Your task to perform on an android device: What's the weather today? Image 0: 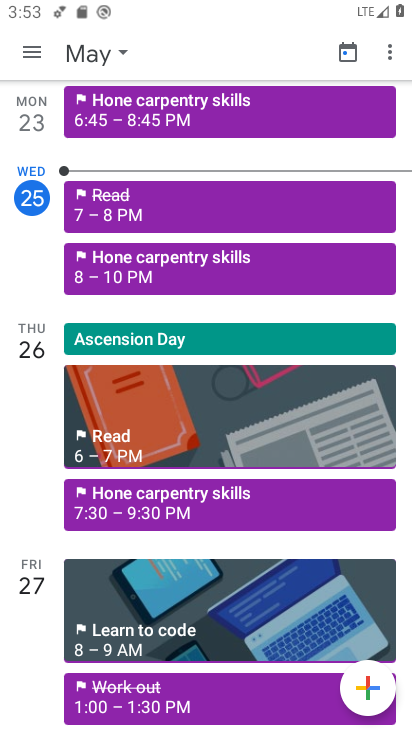
Step 0: press home button
Your task to perform on an android device: What's the weather today? Image 1: 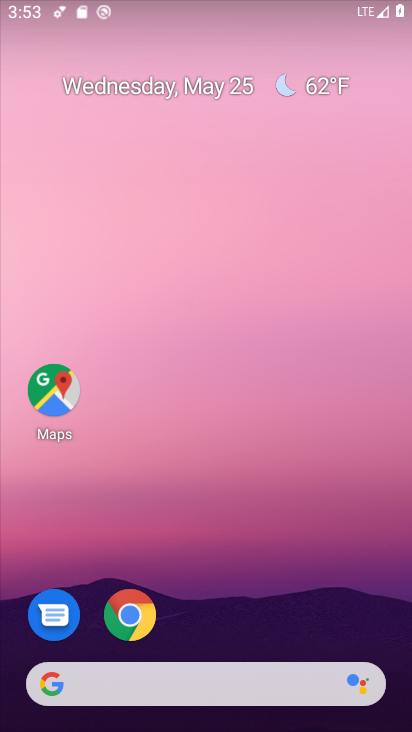
Step 1: drag from (222, 167) to (183, 16)
Your task to perform on an android device: What's the weather today? Image 2: 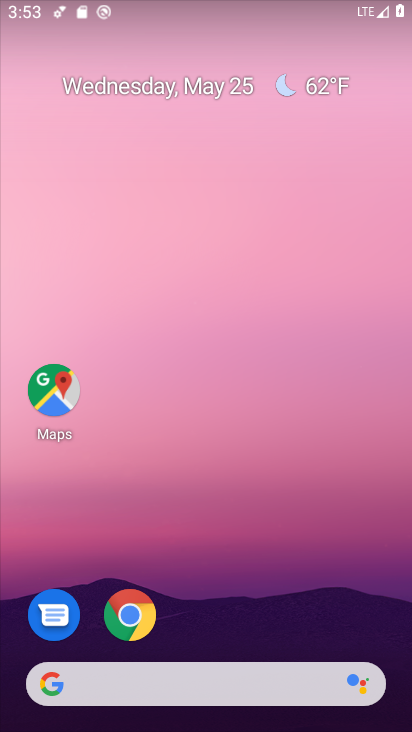
Step 2: click (324, 78)
Your task to perform on an android device: What's the weather today? Image 3: 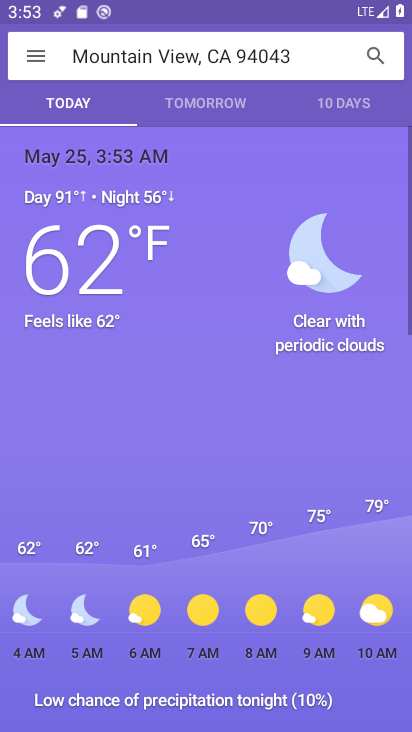
Step 3: task complete